Your task to perform on an android device: change notification settings in the gmail app Image 0: 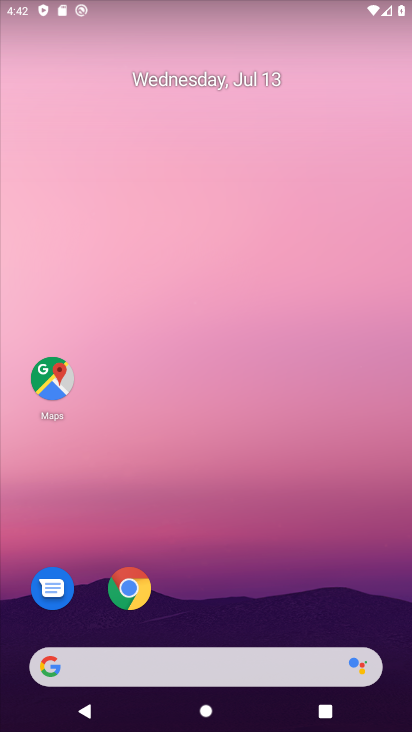
Step 0: drag from (189, 626) to (205, 0)
Your task to perform on an android device: change notification settings in the gmail app Image 1: 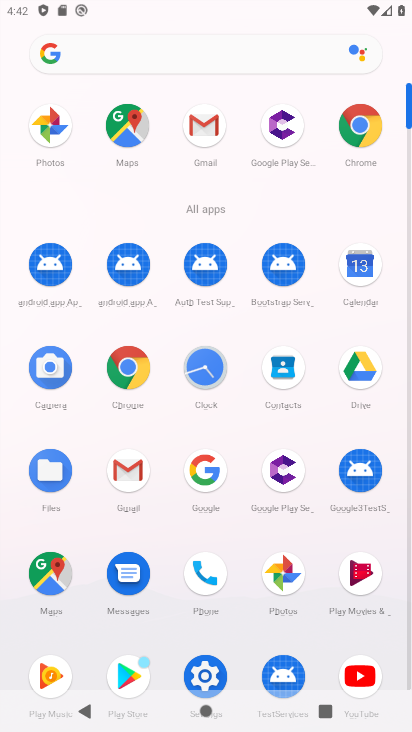
Step 1: click (192, 679)
Your task to perform on an android device: change notification settings in the gmail app Image 2: 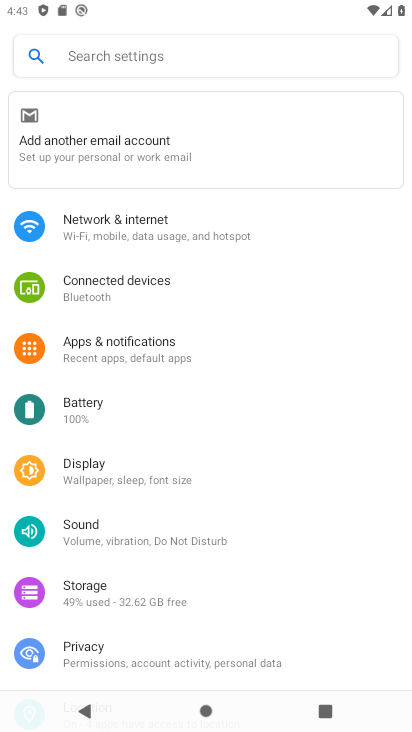
Step 2: click (76, 348)
Your task to perform on an android device: change notification settings in the gmail app Image 3: 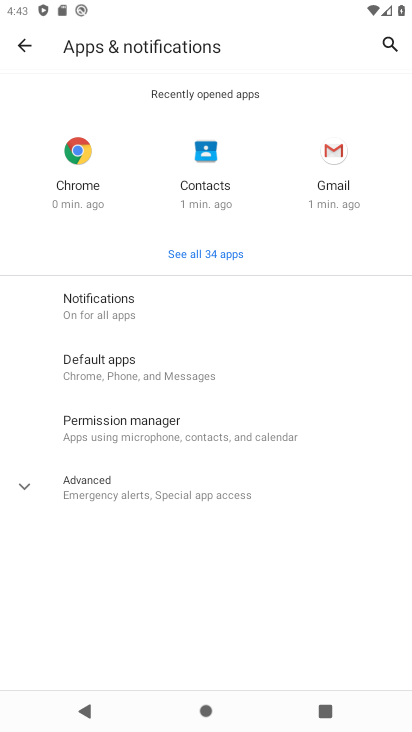
Step 3: click (322, 171)
Your task to perform on an android device: change notification settings in the gmail app Image 4: 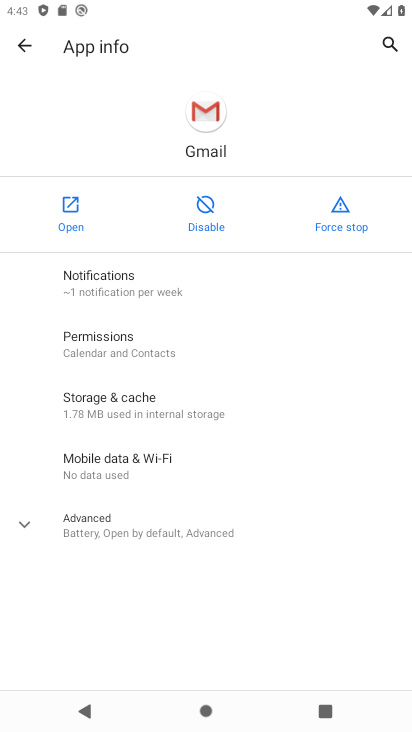
Step 4: click (158, 274)
Your task to perform on an android device: change notification settings in the gmail app Image 5: 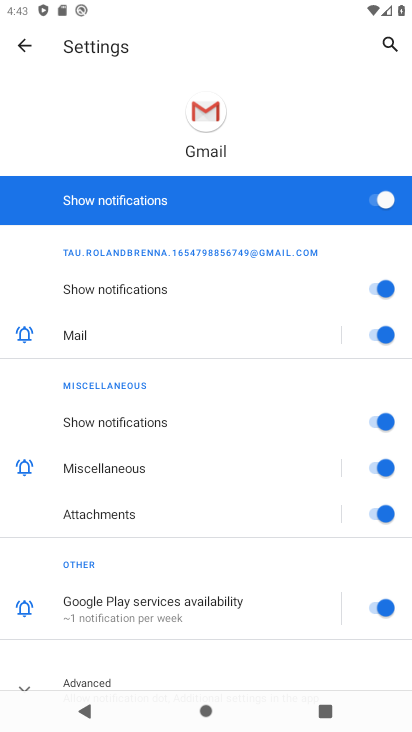
Step 5: click (382, 469)
Your task to perform on an android device: change notification settings in the gmail app Image 6: 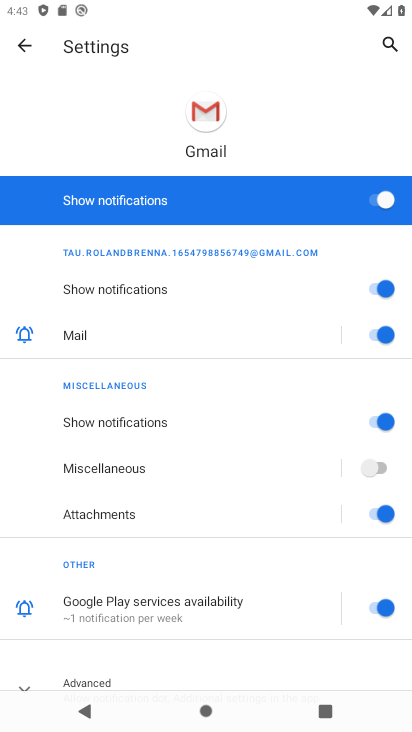
Step 6: click (384, 425)
Your task to perform on an android device: change notification settings in the gmail app Image 7: 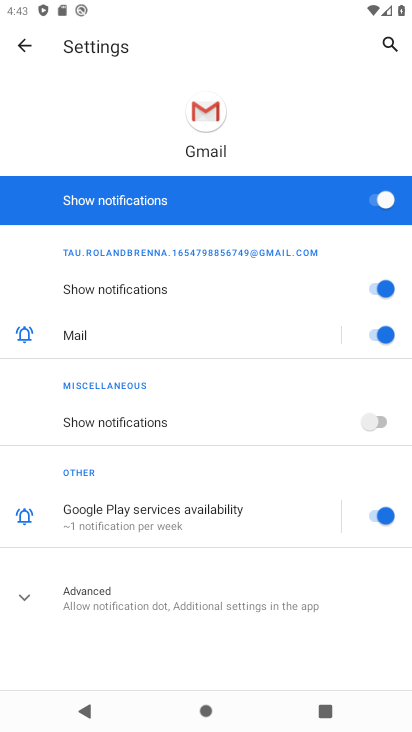
Step 7: task complete